Your task to perform on an android device: What's on my calendar today? Image 0: 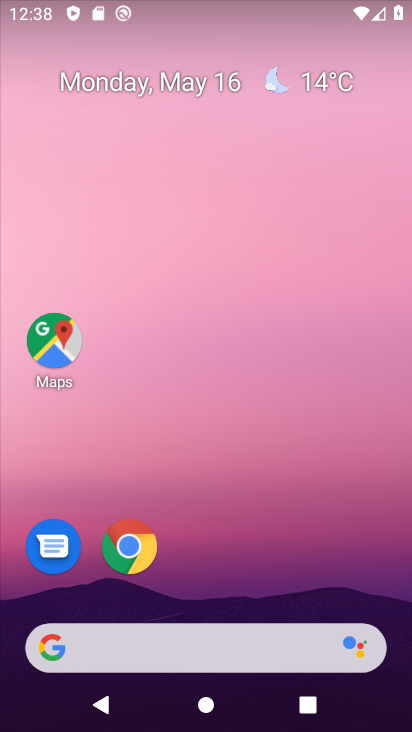
Step 0: drag from (232, 661) to (331, 335)
Your task to perform on an android device: What's on my calendar today? Image 1: 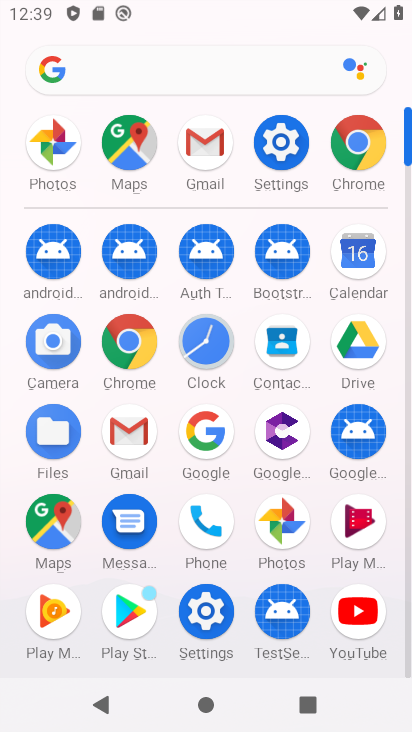
Step 1: click (367, 267)
Your task to perform on an android device: What's on my calendar today? Image 2: 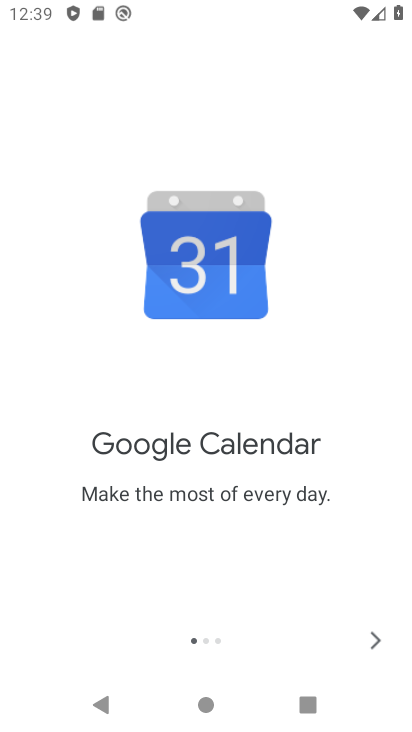
Step 2: click (358, 625)
Your task to perform on an android device: What's on my calendar today? Image 3: 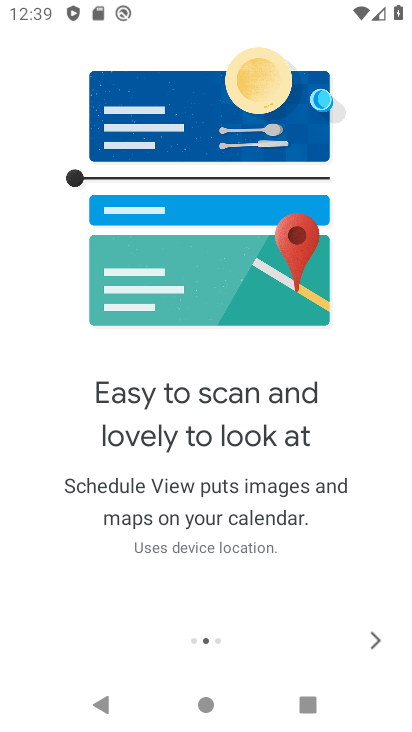
Step 3: click (357, 646)
Your task to perform on an android device: What's on my calendar today? Image 4: 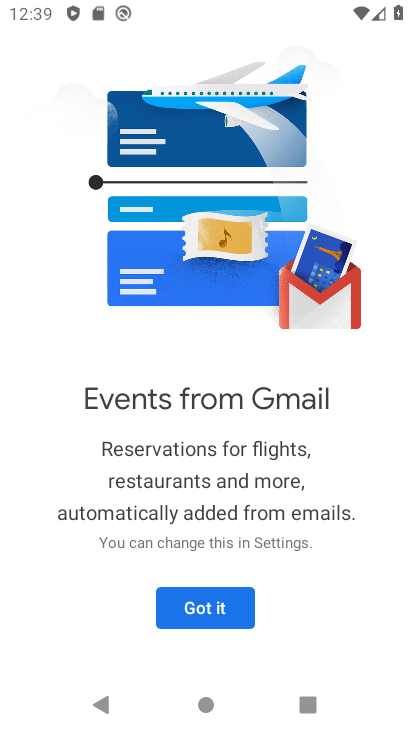
Step 4: click (229, 603)
Your task to perform on an android device: What's on my calendar today? Image 5: 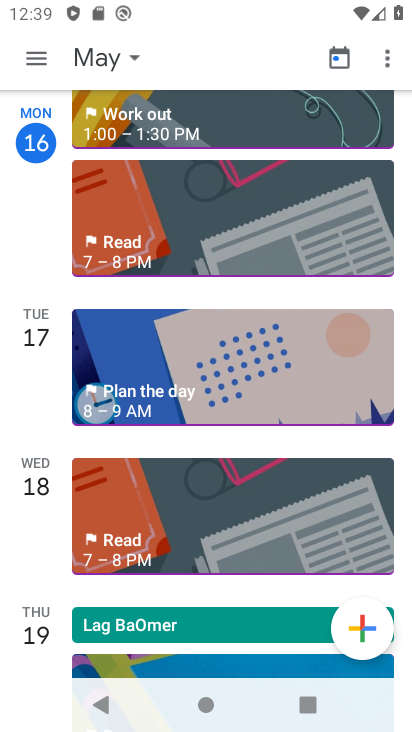
Step 5: task complete